Your task to perform on an android device: Show me the alarms in the clock app Image 0: 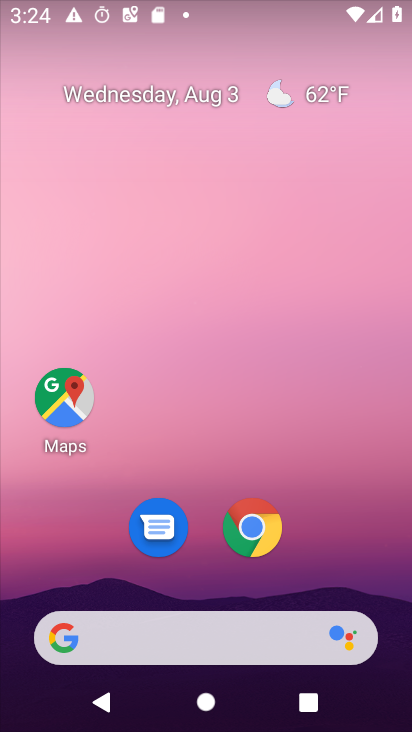
Step 0: drag from (355, 540) to (323, 170)
Your task to perform on an android device: Show me the alarms in the clock app Image 1: 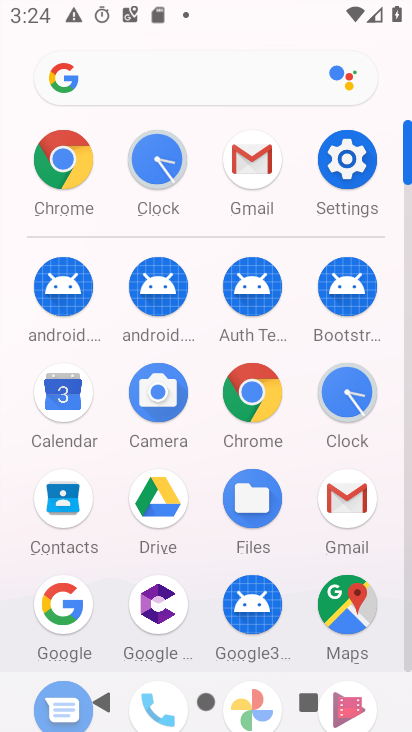
Step 1: click (356, 387)
Your task to perform on an android device: Show me the alarms in the clock app Image 2: 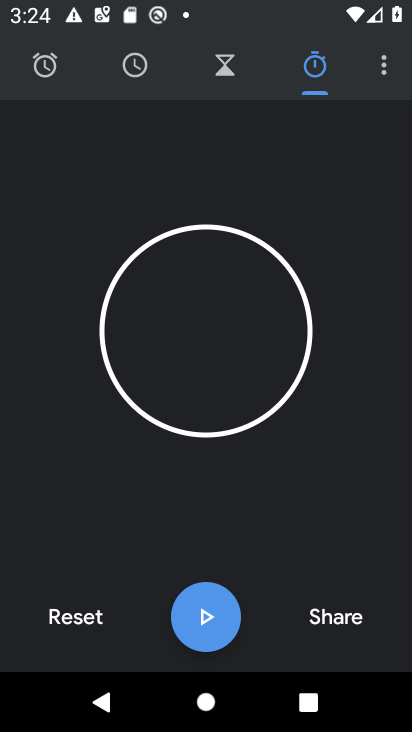
Step 2: click (53, 59)
Your task to perform on an android device: Show me the alarms in the clock app Image 3: 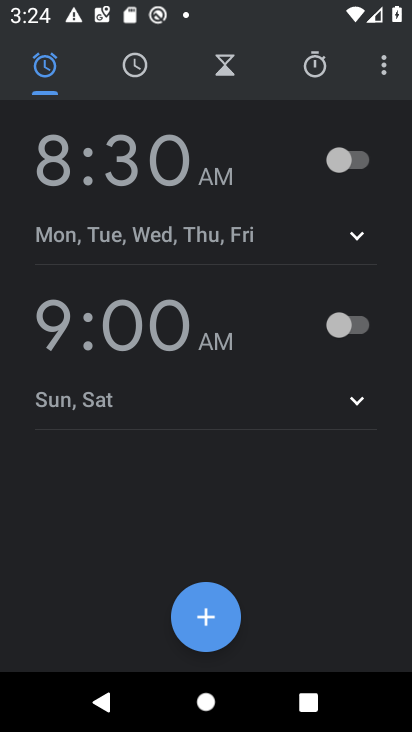
Step 3: task complete